Your task to perform on an android device: Go to internet settings Image 0: 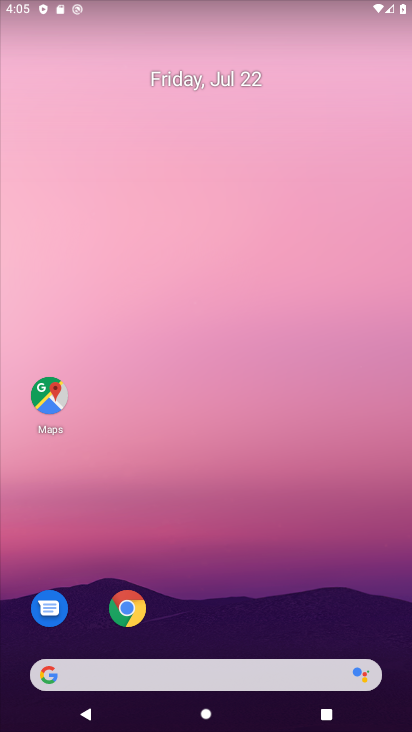
Step 0: press home button
Your task to perform on an android device: Go to internet settings Image 1: 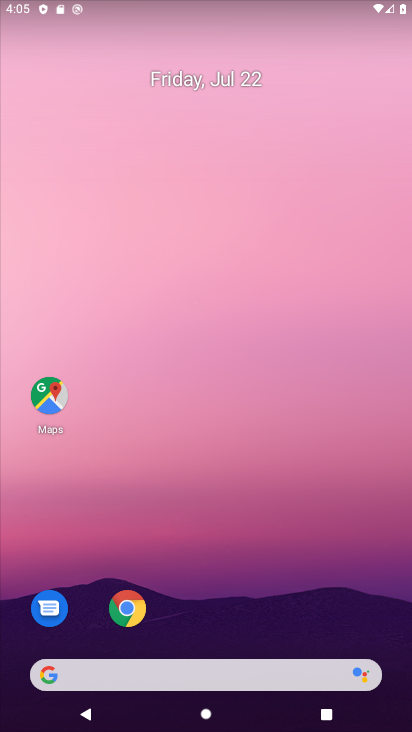
Step 1: drag from (284, 519) to (251, 100)
Your task to perform on an android device: Go to internet settings Image 2: 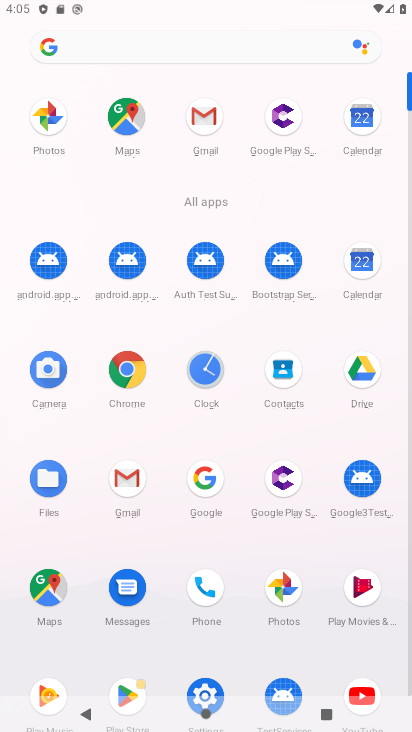
Step 2: click (190, 683)
Your task to perform on an android device: Go to internet settings Image 3: 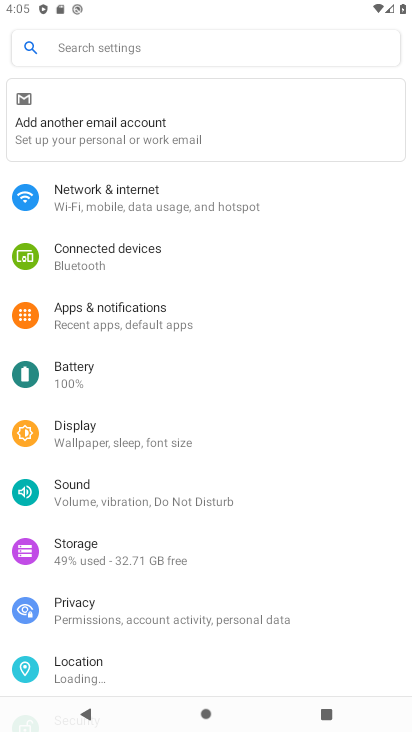
Step 3: click (118, 197)
Your task to perform on an android device: Go to internet settings Image 4: 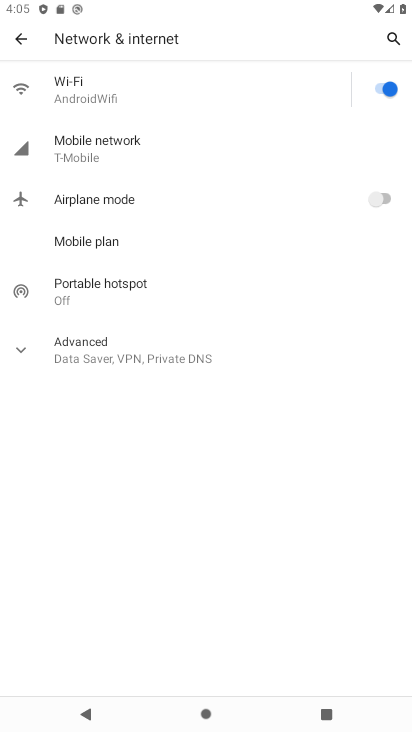
Step 4: task complete